Your task to perform on an android device: Go to Yahoo.com Image 0: 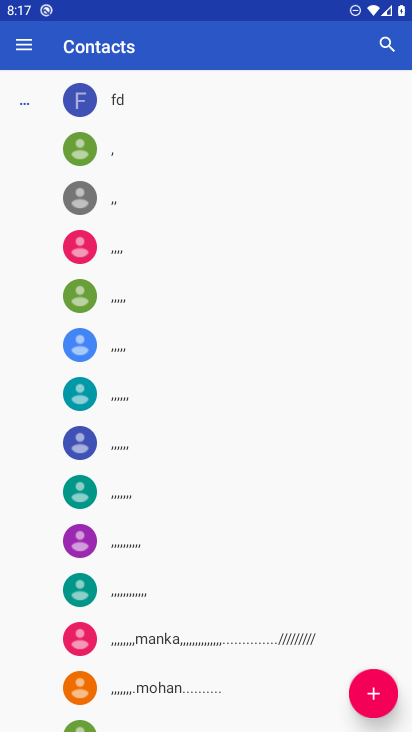
Step 0: press home button
Your task to perform on an android device: Go to Yahoo.com Image 1: 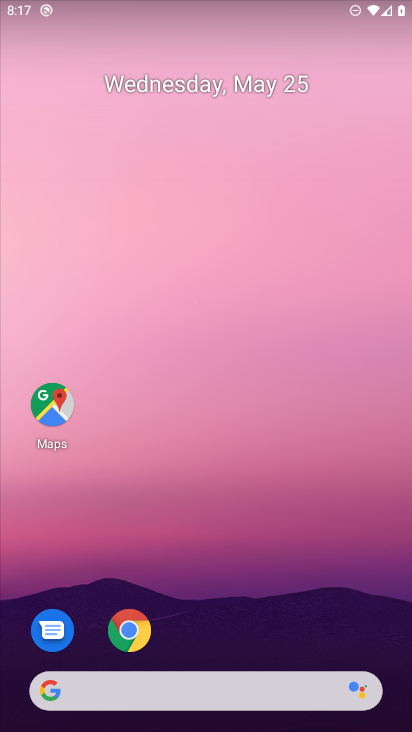
Step 1: drag from (235, 631) to (371, 398)
Your task to perform on an android device: Go to Yahoo.com Image 2: 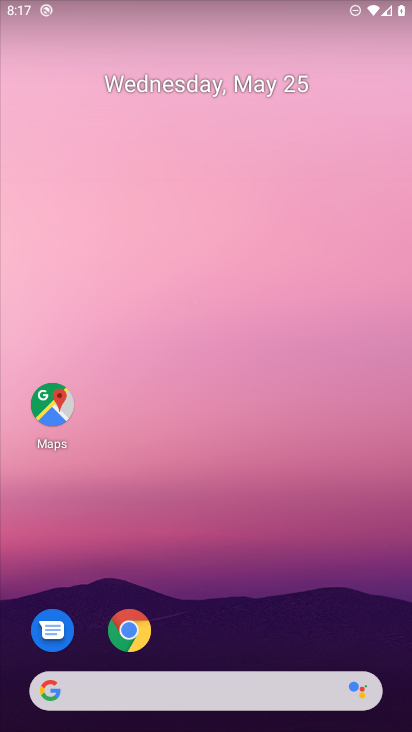
Step 2: click (131, 633)
Your task to perform on an android device: Go to Yahoo.com Image 3: 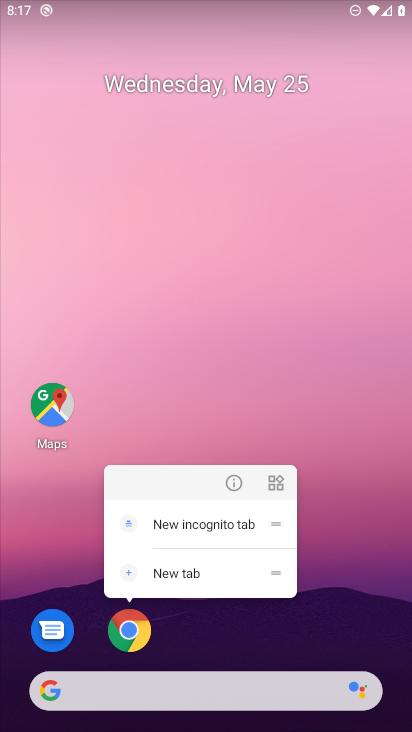
Step 3: click (131, 633)
Your task to perform on an android device: Go to Yahoo.com Image 4: 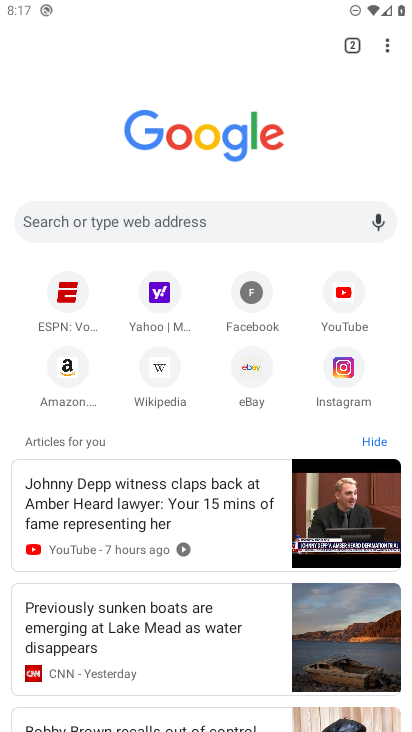
Step 4: click (158, 294)
Your task to perform on an android device: Go to Yahoo.com Image 5: 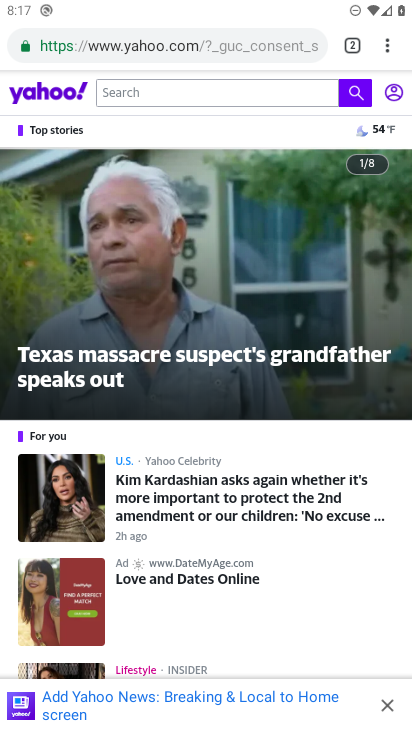
Step 5: task complete